Your task to perform on an android device: toggle javascript in the chrome app Image 0: 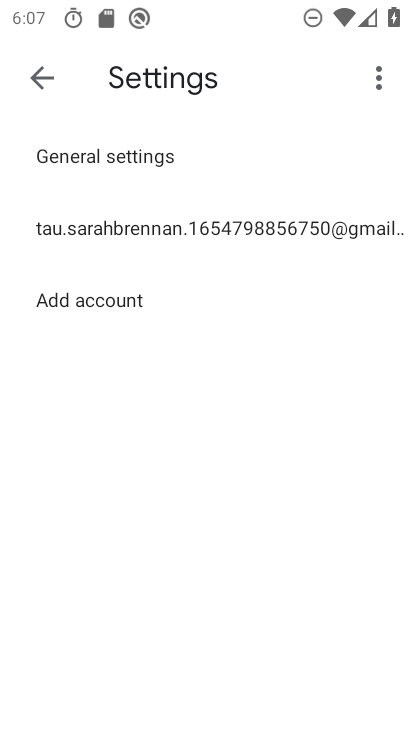
Step 0: press back button
Your task to perform on an android device: toggle javascript in the chrome app Image 1: 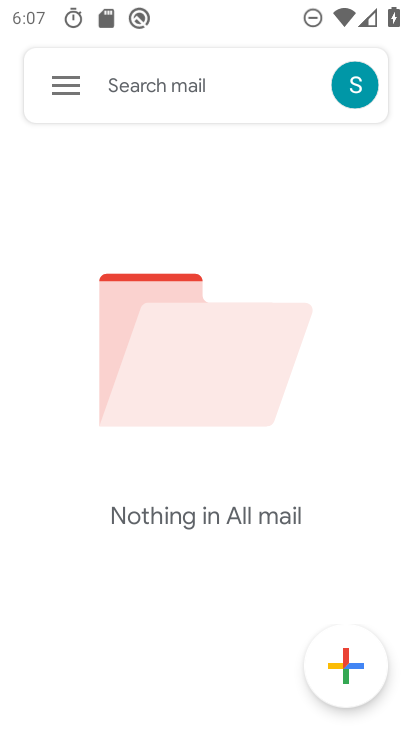
Step 1: press back button
Your task to perform on an android device: toggle javascript in the chrome app Image 2: 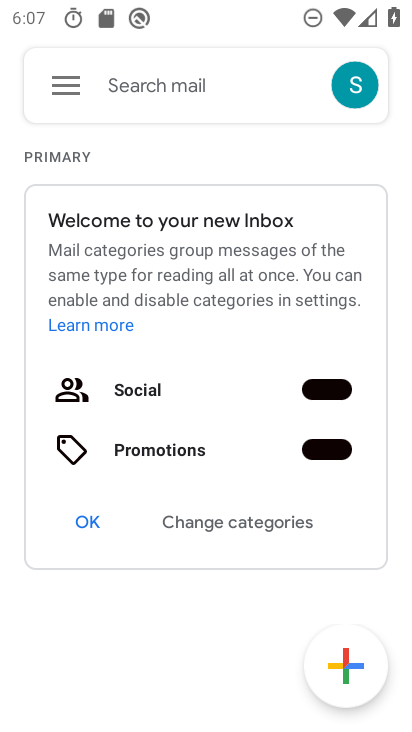
Step 2: press back button
Your task to perform on an android device: toggle javascript in the chrome app Image 3: 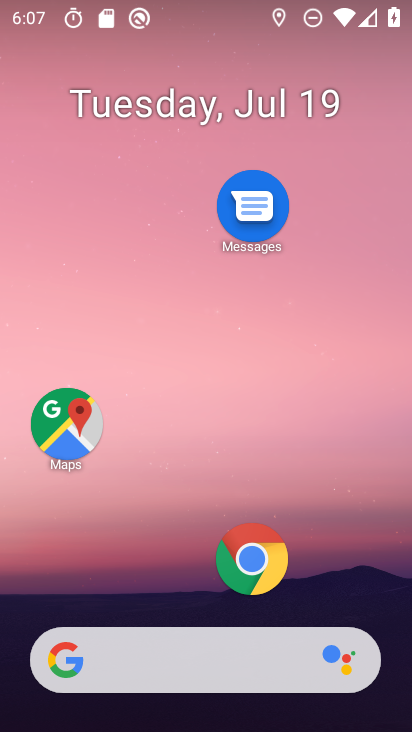
Step 3: click (234, 570)
Your task to perform on an android device: toggle javascript in the chrome app Image 4: 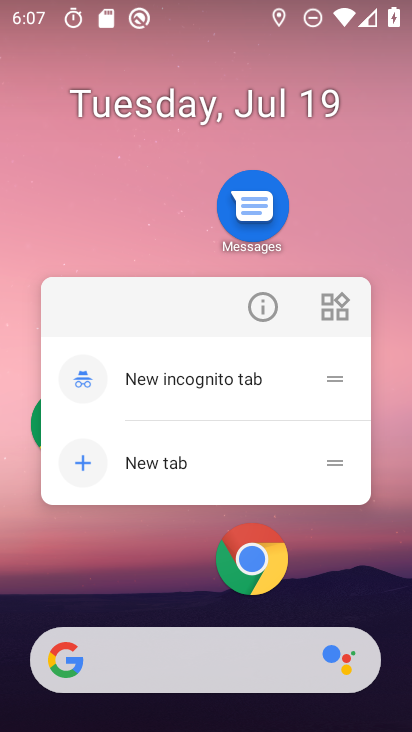
Step 4: click (260, 564)
Your task to perform on an android device: toggle javascript in the chrome app Image 5: 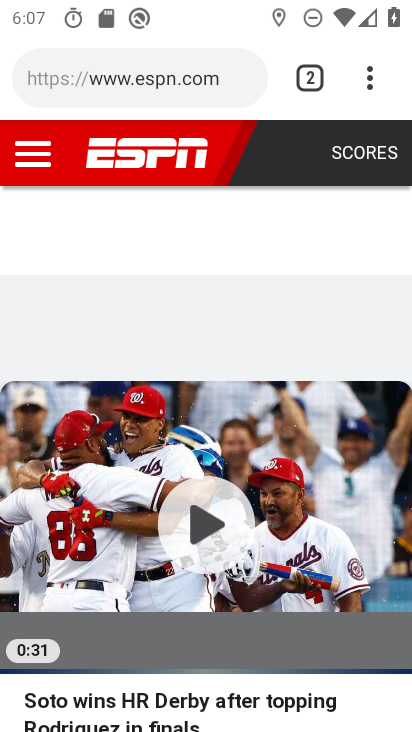
Step 5: drag from (368, 73) to (105, 616)
Your task to perform on an android device: toggle javascript in the chrome app Image 6: 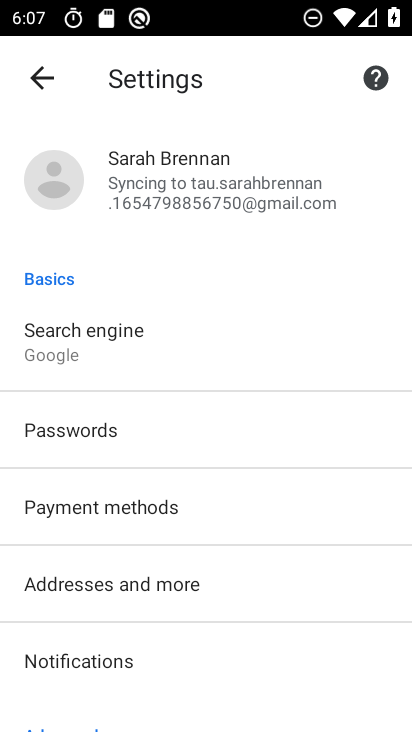
Step 6: drag from (134, 604) to (178, 102)
Your task to perform on an android device: toggle javascript in the chrome app Image 7: 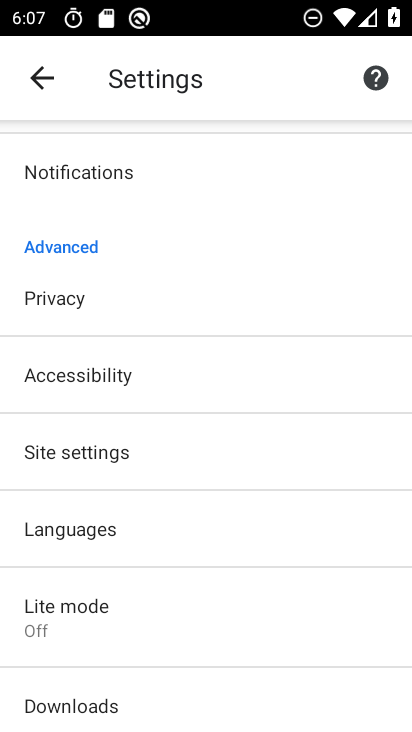
Step 7: click (91, 465)
Your task to perform on an android device: toggle javascript in the chrome app Image 8: 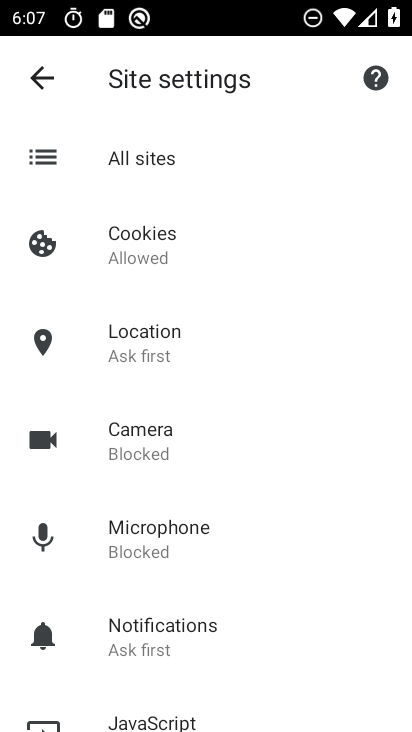
Step 8: click (148, 718)
Your task to perform on an android device: toggle javascript in the chrome app Image 9: 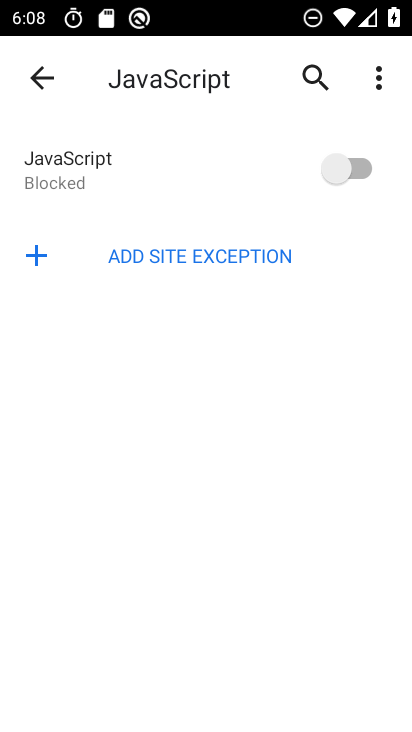
Step 9: click (345, 162)
Your task to perform on an android device: toggle javascript in the chrome app Image 10: 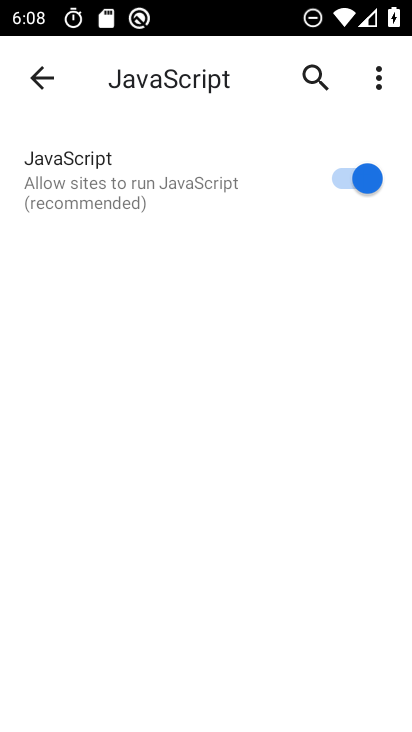
Step 10: task complete